Your task to perform on an android device: When is my next meeting? Image 0: 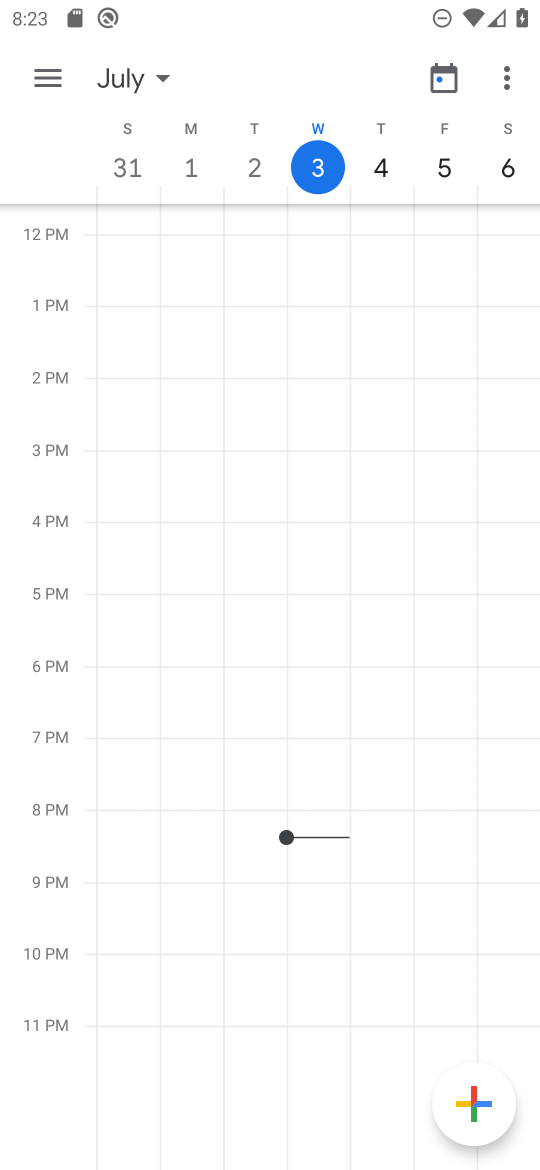
Step 0: drag from (359, 245) to (466, 1000)
Your task to perform on an android device: When is my next meeting? Image 1: 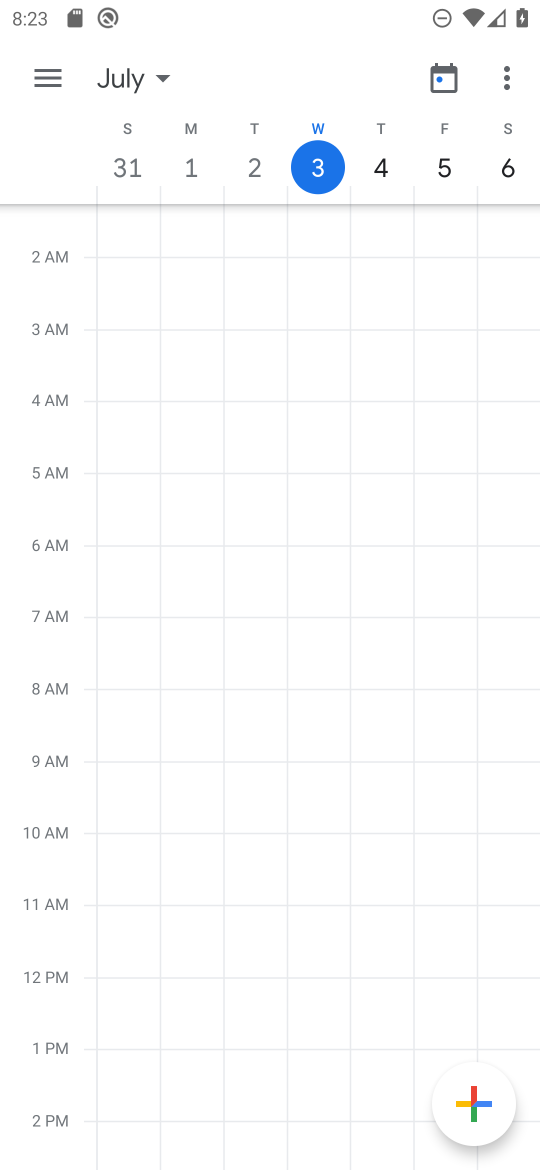
Step 1: drag from (395, 279) to (402, 890)
Your task to perform on an android device: When is my next meeting? Image 2: 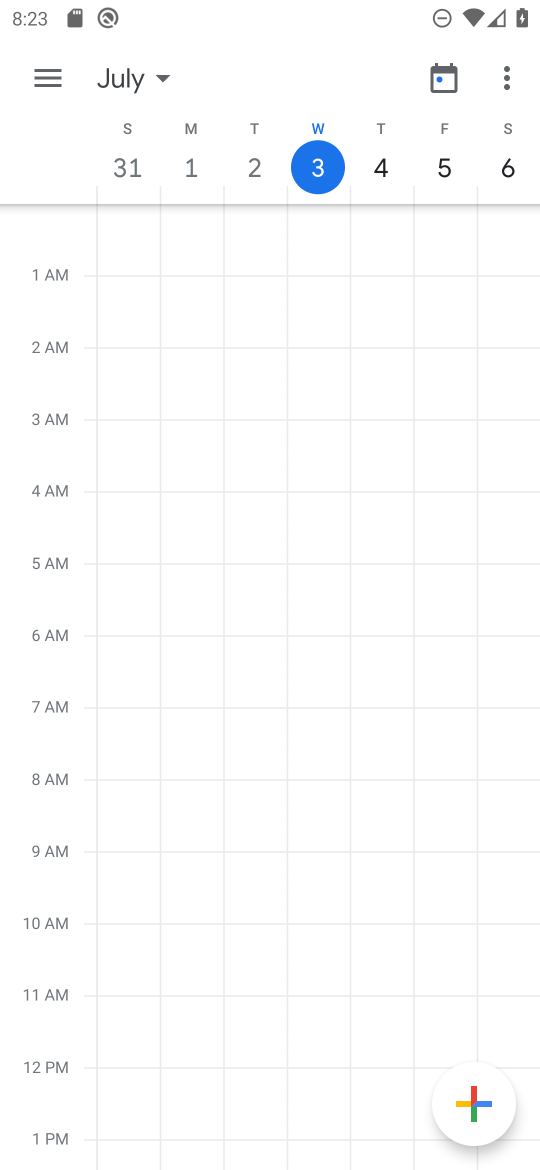
Step 2: click (320, 173)
Your task to perform on an android device: When is my next meeting? Image 3: 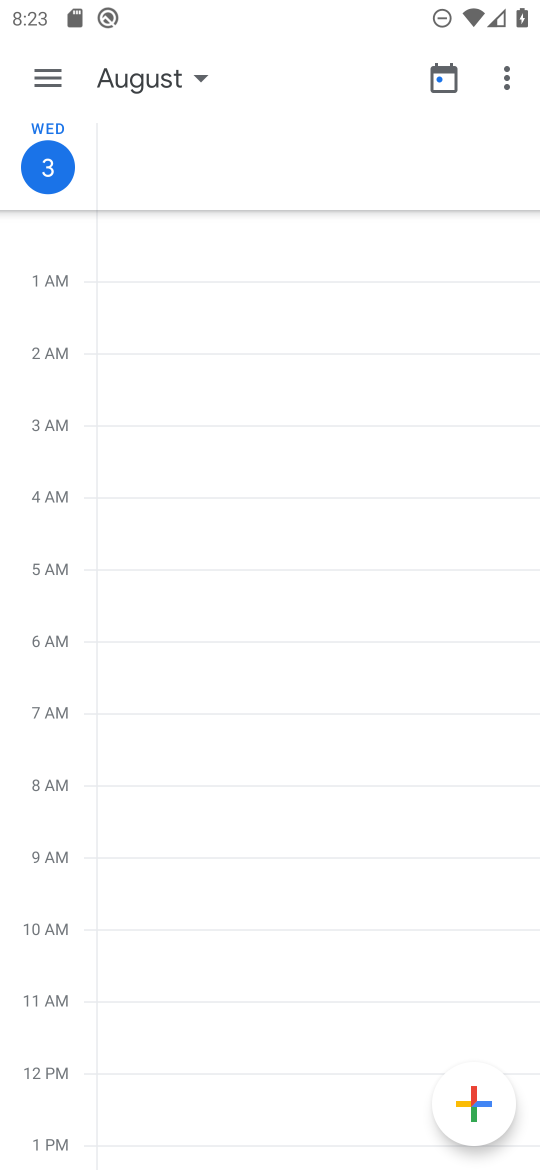
Step 3: click (44, 159)
Your task to perform on an android device: When is my next meeting? Image 4: 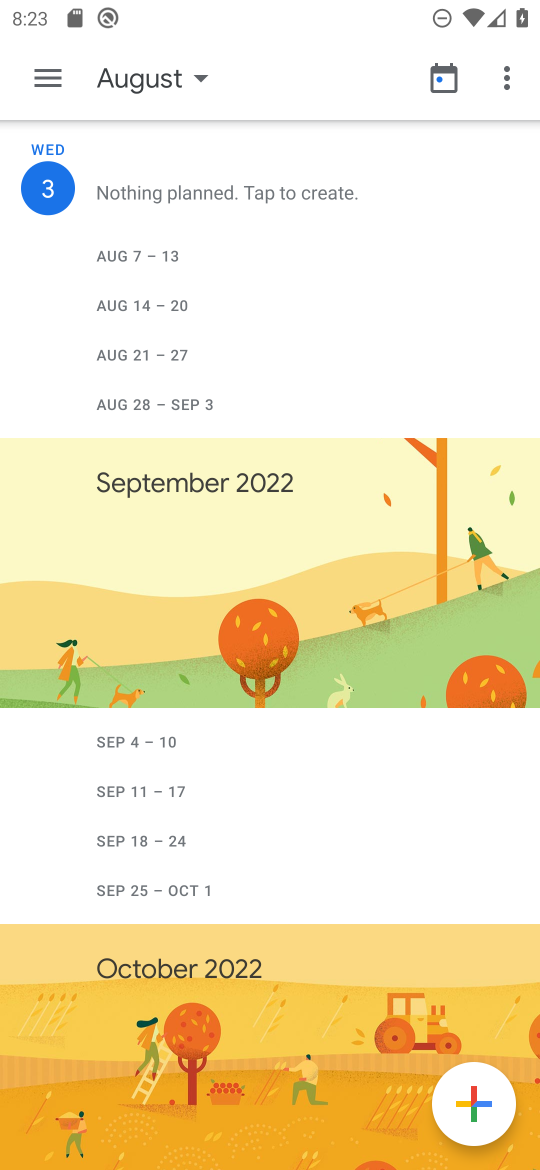
Step 4: task complete